Your task to perform on an android device: turn off picture-in-picture Image 0: 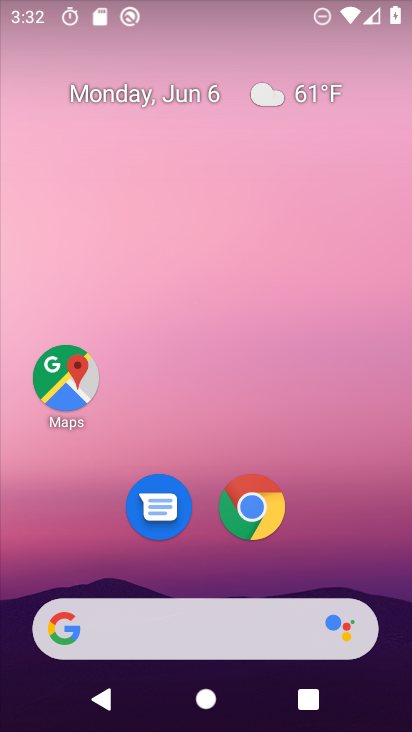
Step 0: click (247, 516)
Your task to perform on an android device: turn off picture-in-picture Image 1: 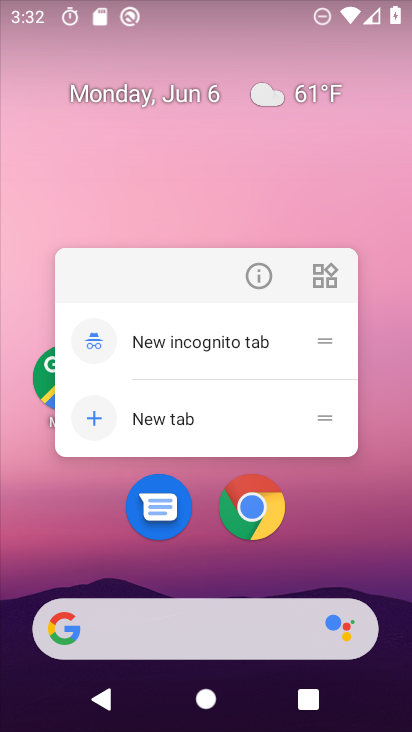
Step 1: click (249, 281)
Your task to perform on an android device: turn off picture-in-picture Image 2: 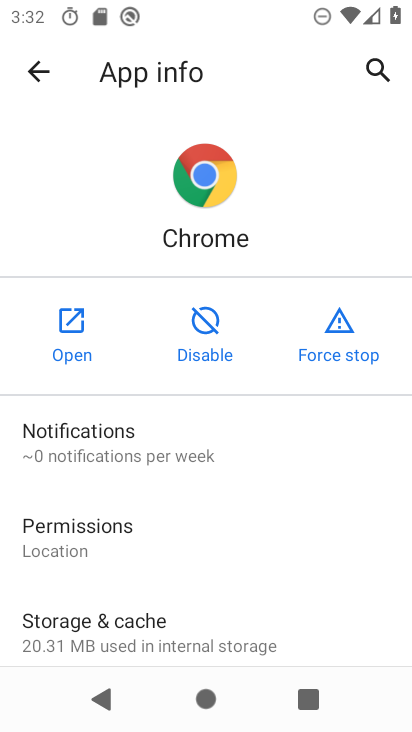
Step 2: drag from (191, 591) to (221, 331)
Your task to perform on an android device: turn off picture-in-picture Image 3: 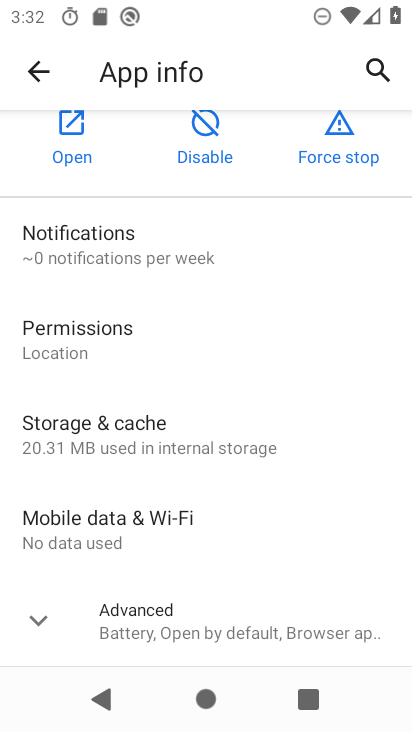
Step 3: click (200, 616)
Your task to perform on an android device: turn off picture-in-picture Image 4: 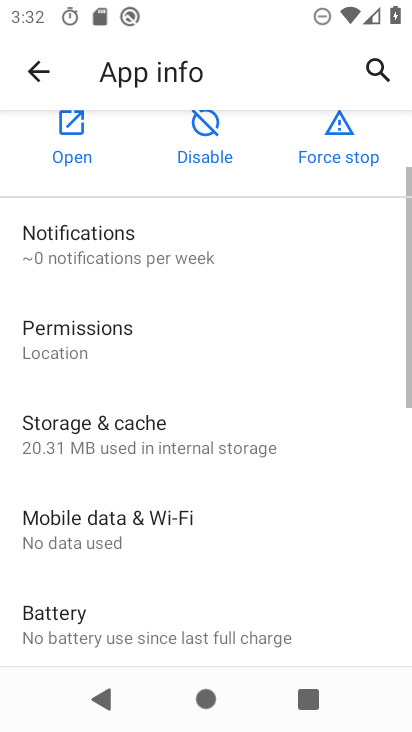
Step 4: drag from (200, 614) to (245, 304)
Your task to perform on an android device: turn off picture-in-picture Image 5: 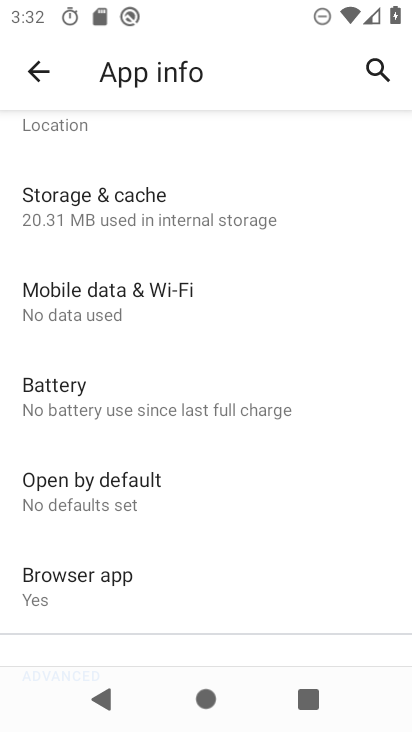
Step 5: drag from (224, 483) to (250, 345)
Your task to perform on an android device: turn off picture-in-picture Image 6: 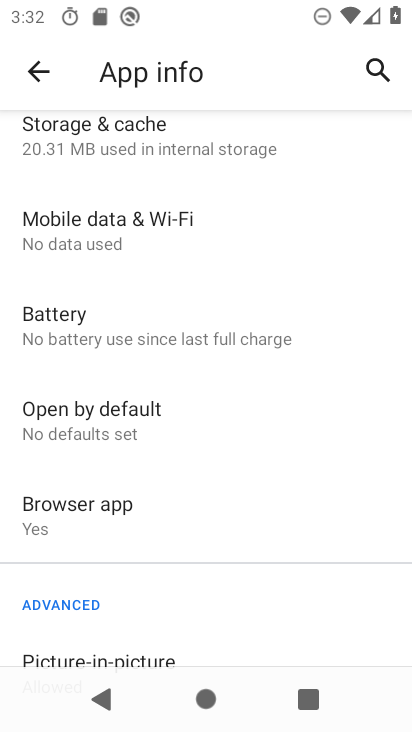
Step 6: drag from (171, 592) to (218, 348)
Your task to perform on an android device: turn off picture-in-picture Image 7: 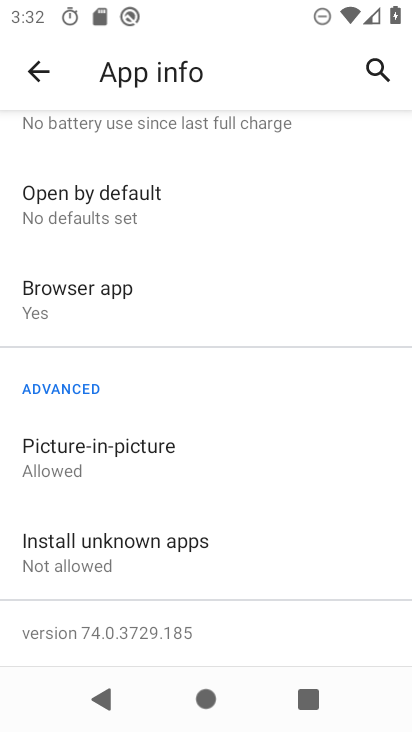
Step 7: click (189, 465)
Your task to perform on an android device: turn off picture-in-picture Image 8: 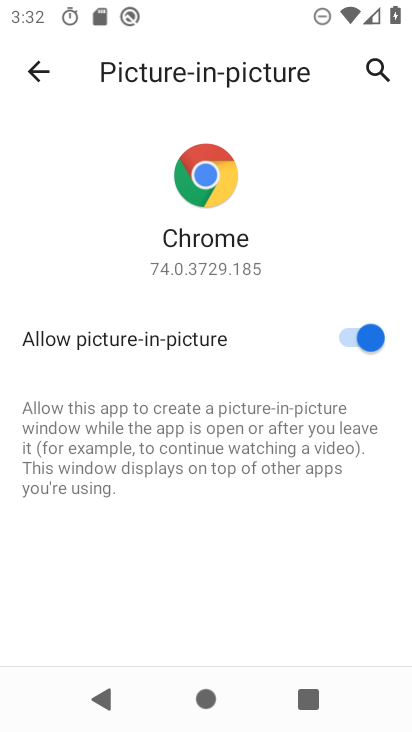
Step 8: click (352, 341)
Your task to perform on an android device: turn off picture-in-picture Image 9: 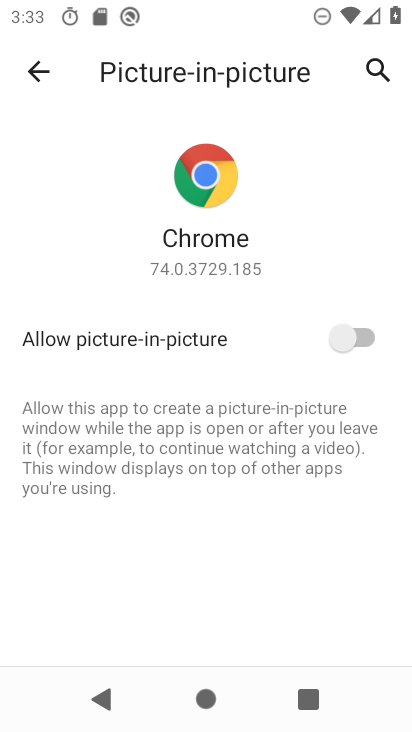
Step 9: task complete